Your task to perform on an android device: Open Google Image 0: 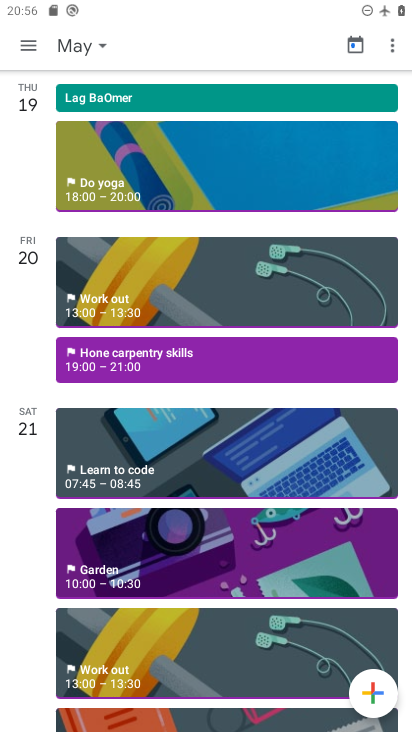
Step 0: press home button
Your task to perform on an android device: Open Google Image 1: 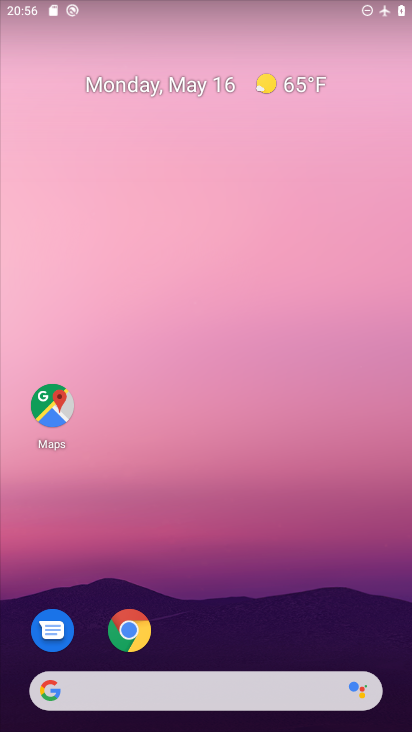
Step 1: drag from (197, 631) to (222, 256)
Your task to perform on an android device: Open Google Image 2: 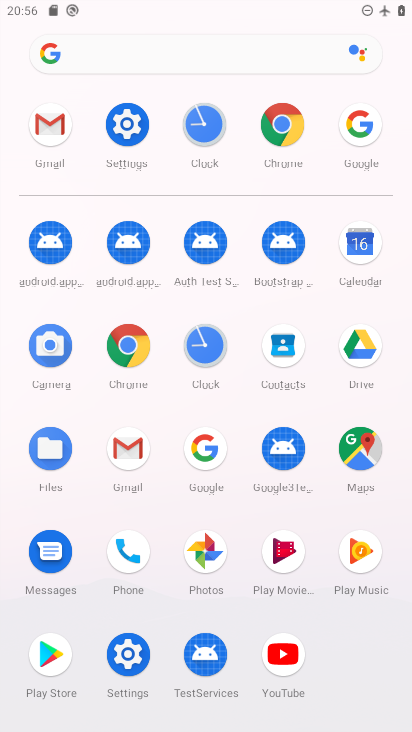
Step 2: click (353, 126)
Your task to perform on an android device: Open Google Image 3: 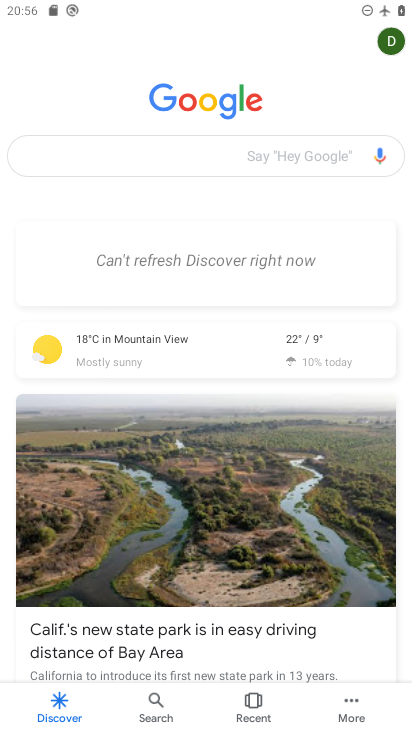
Step 3: task complete